Your task to perform on an android device: Open Google Chrome and open the bookmarks view Image 0: 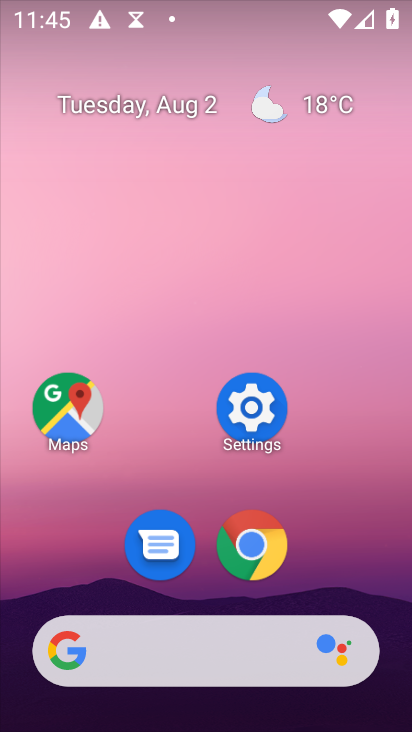
Step 0: press home button
Your task to perform on an android device: Open Google Chrome and open the bookmarks view Image 1: 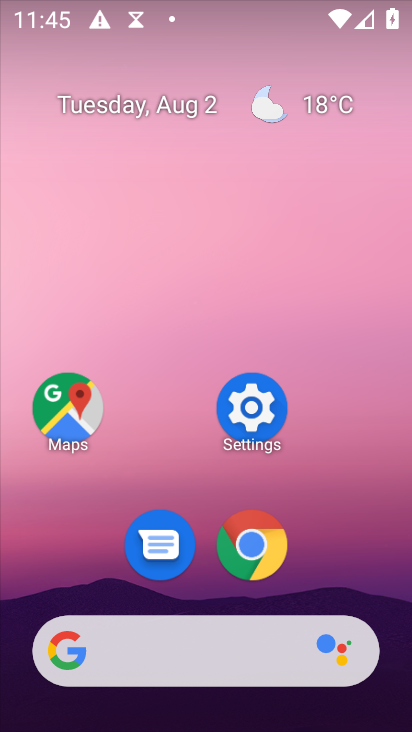
Step 1: click (251, 544)
Your task to perform on an android device: Open Google Chrome and open the bookmarks view Image 2: 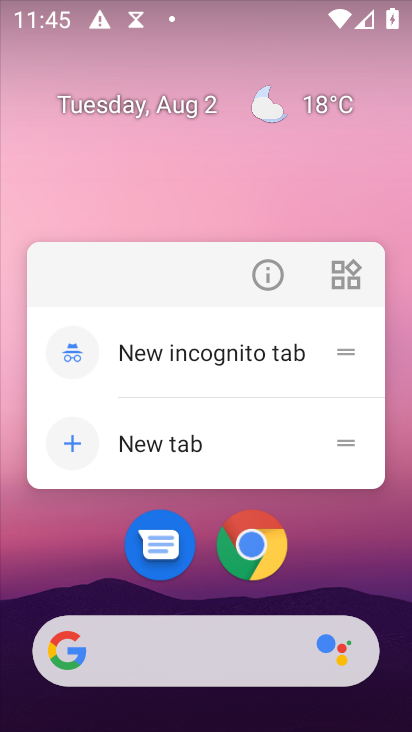
Step 2: click (252, 556)
Your task to perform on an android device: Open Google Chrome and open the bookmarks view Image 3: 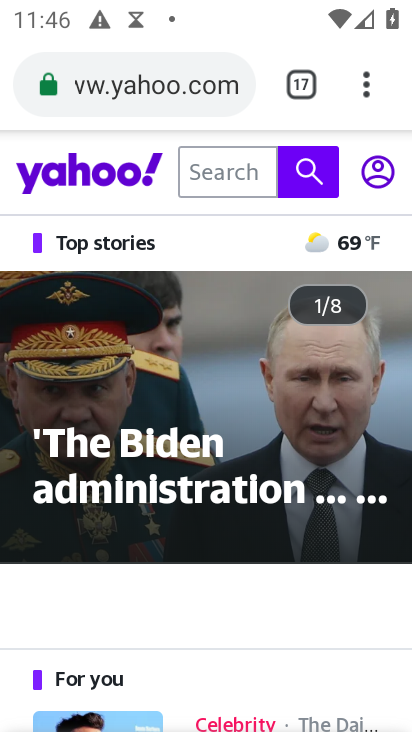
Step 3: task complete